Your task to perform on an android device: Show me the best rated coffee table on Ikea Image 0: 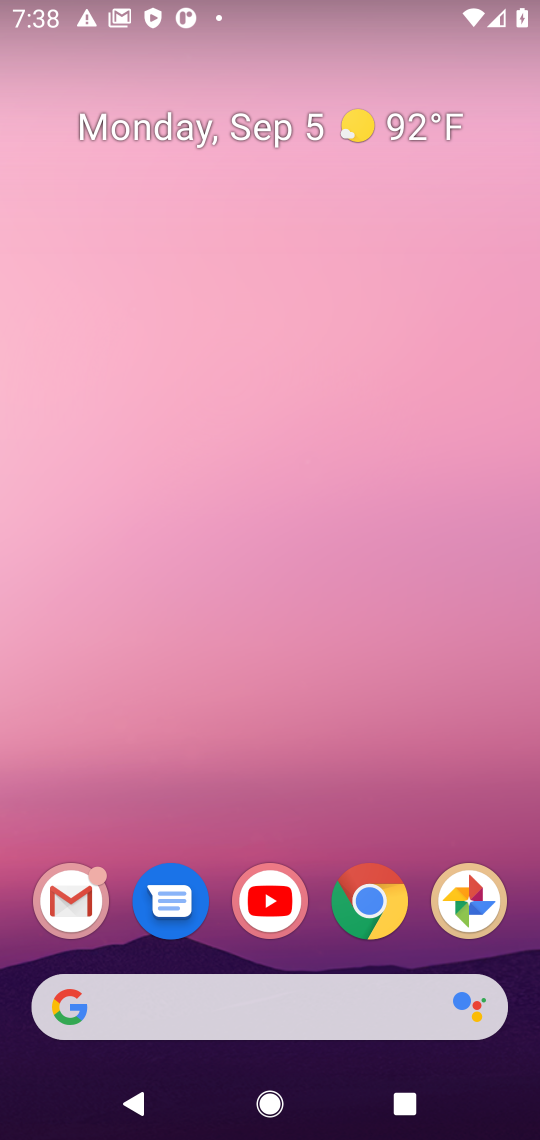
Step 0: click (354, 927)
Your task to perform on an android device: Show me the best rated coffee table on Ikea Image 1: 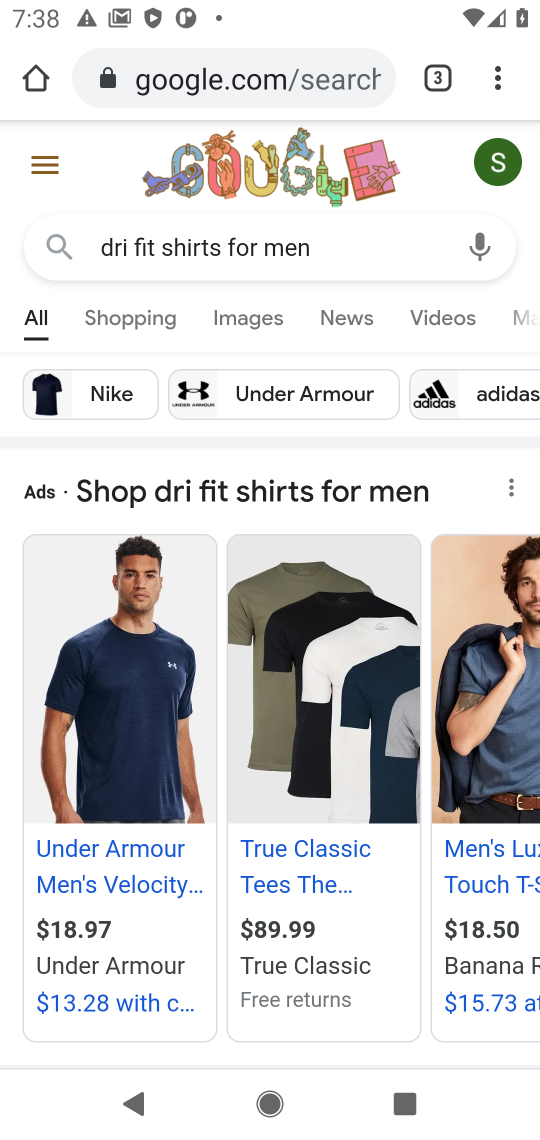
Step 1: click (269, 90)
Your task to perform on an android device: Show me the best rated coffee table on Ikea Image 2: 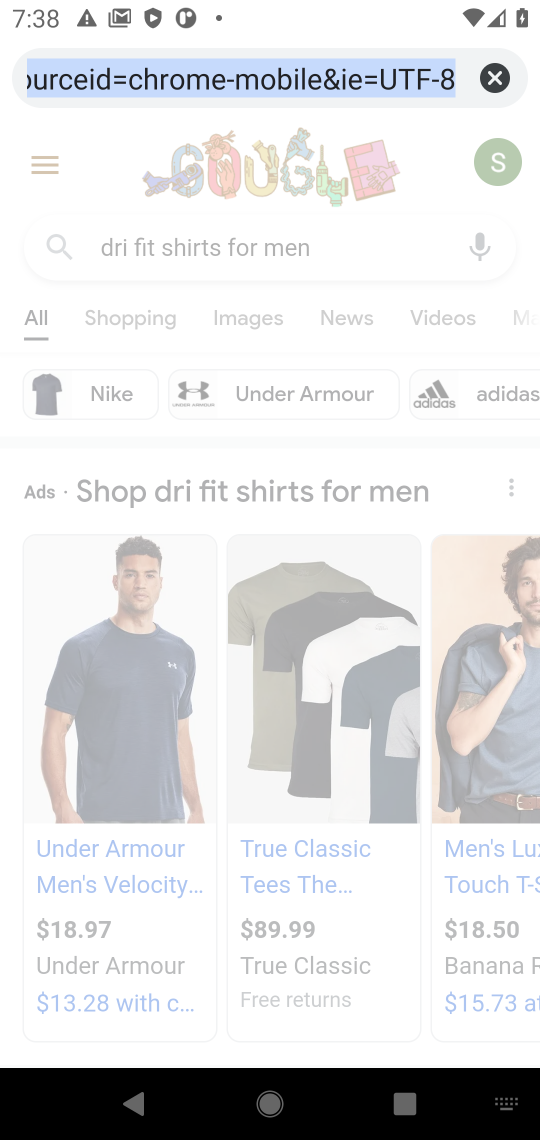
Step 2: type "ikea"
Your task to perform on an android device: Show me the best rated coffee table on Ikea Image 3: 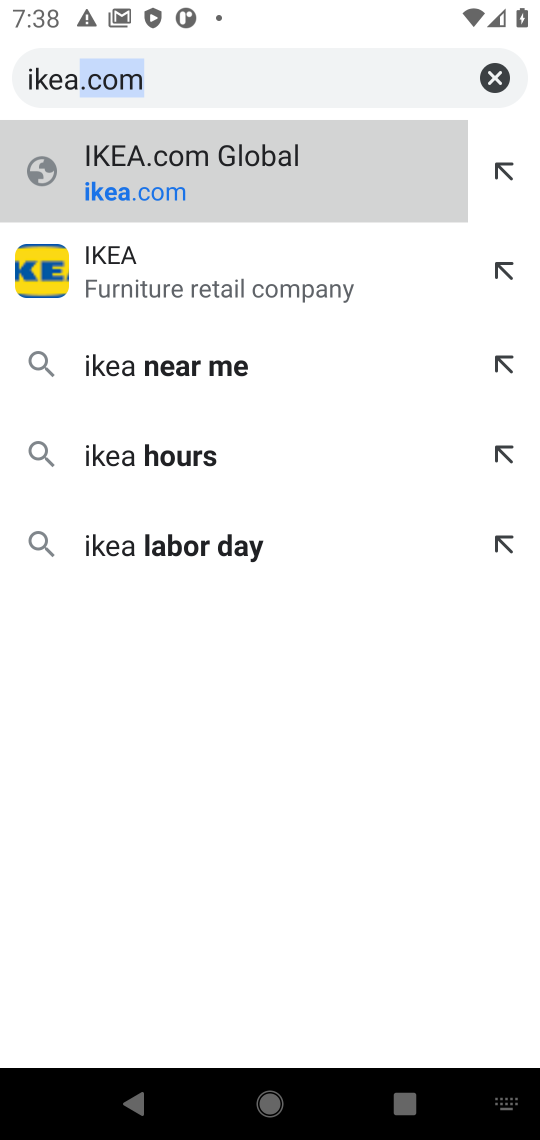
Step 3: click (131, 179)
Your task to perform on an android device: Show me the best rated coffee table on Ikea Image 4: 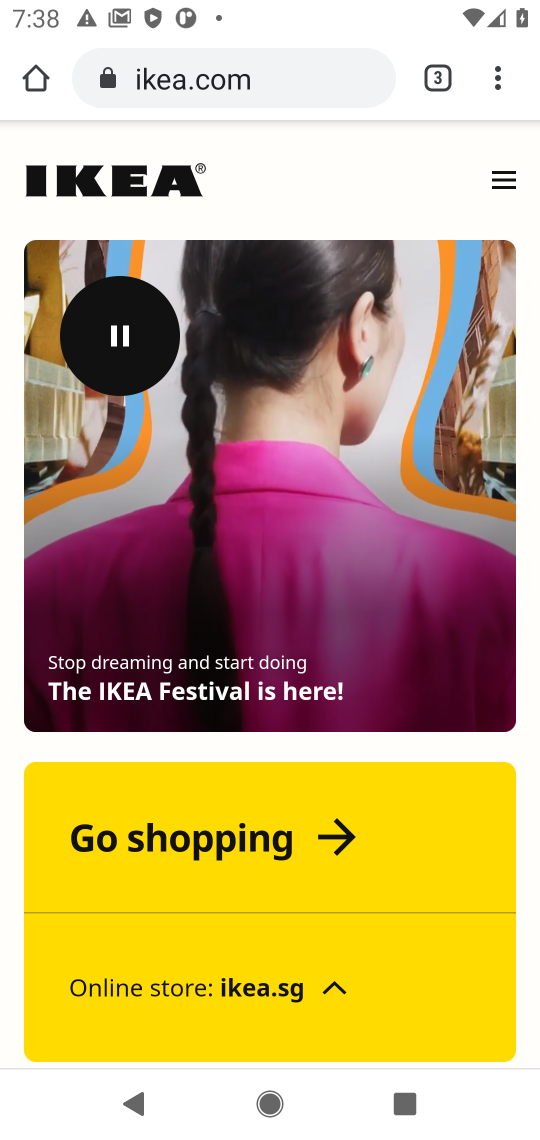
Step 4: click (137, 840)
Your task to perform on an android device: Show me the best rated coffee table on Ikea Image 5: 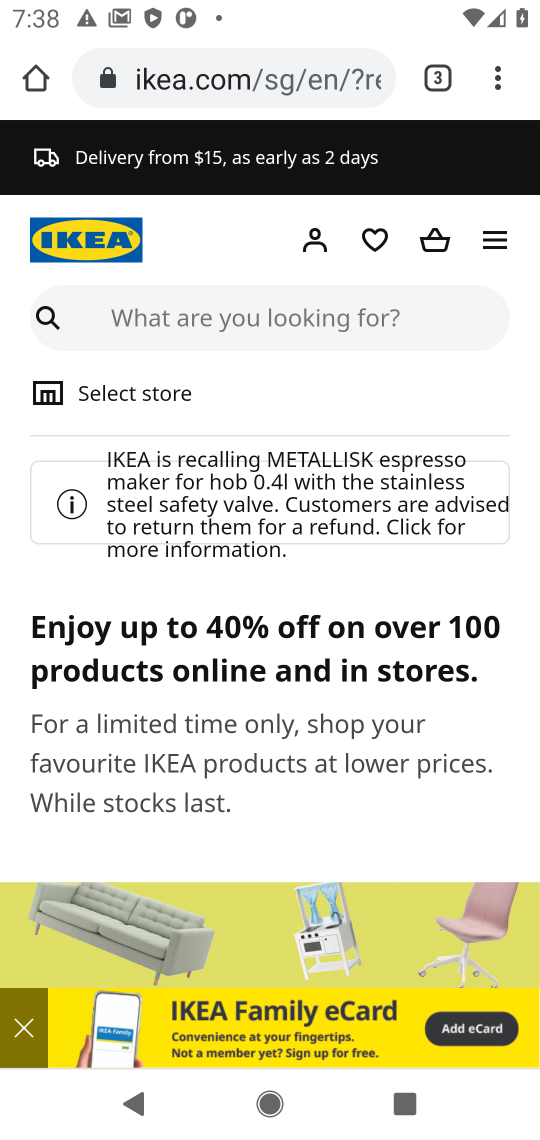
Step 5: click (276, 316)
Your task to perform on an android device: Show me the best rated coffee table on Ikea Image 6: 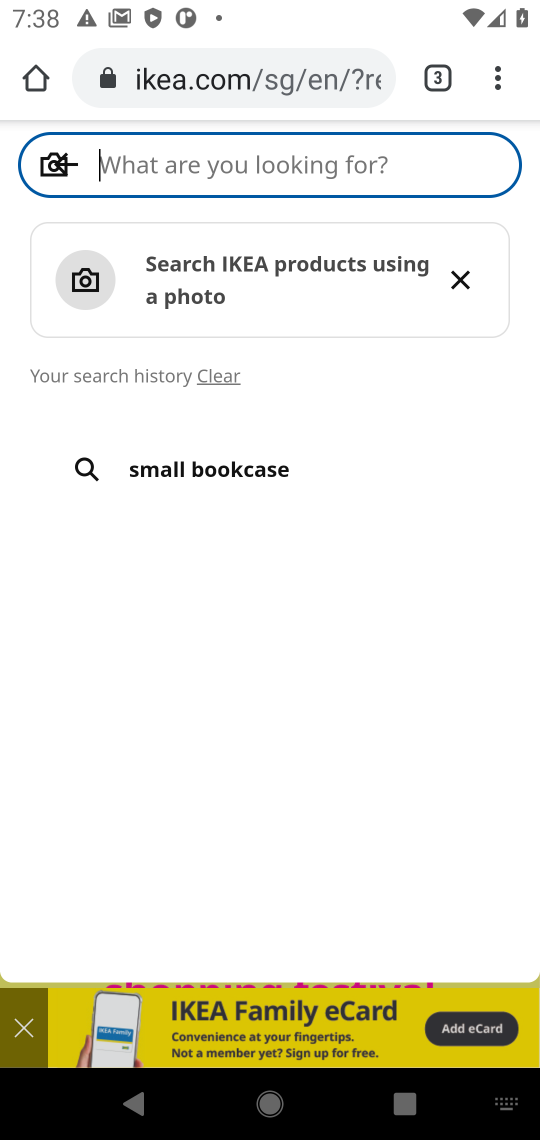
Step 6: type "coffee table"
Your task to perform on an android device: Show me the best rated coffee table on Ikea Image 7: 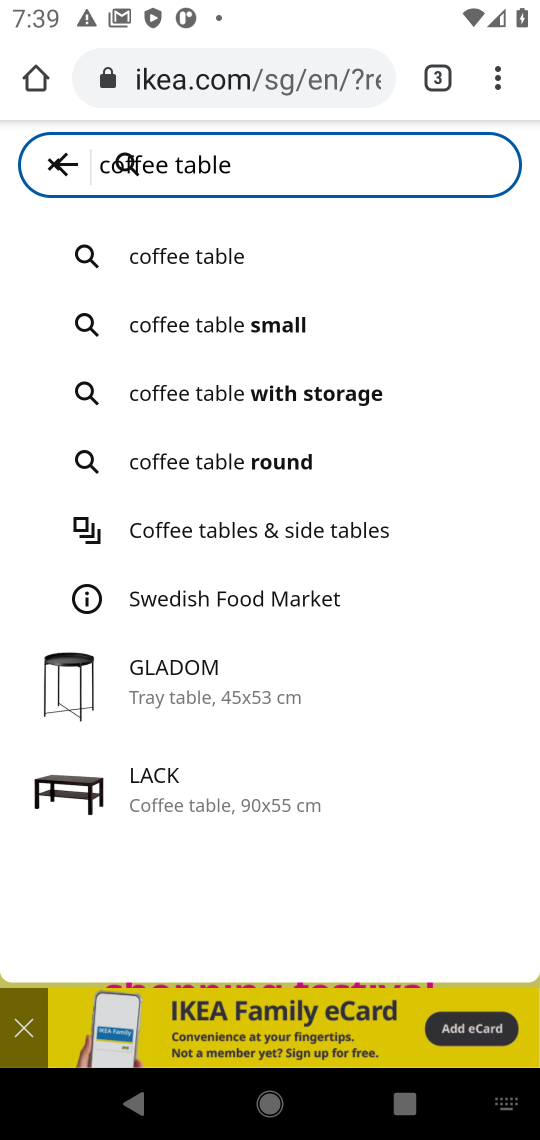
Step 7: click (260, 249)
Your task to perform on an android device: Show me the best rated coffee table on Ikea Image 8: 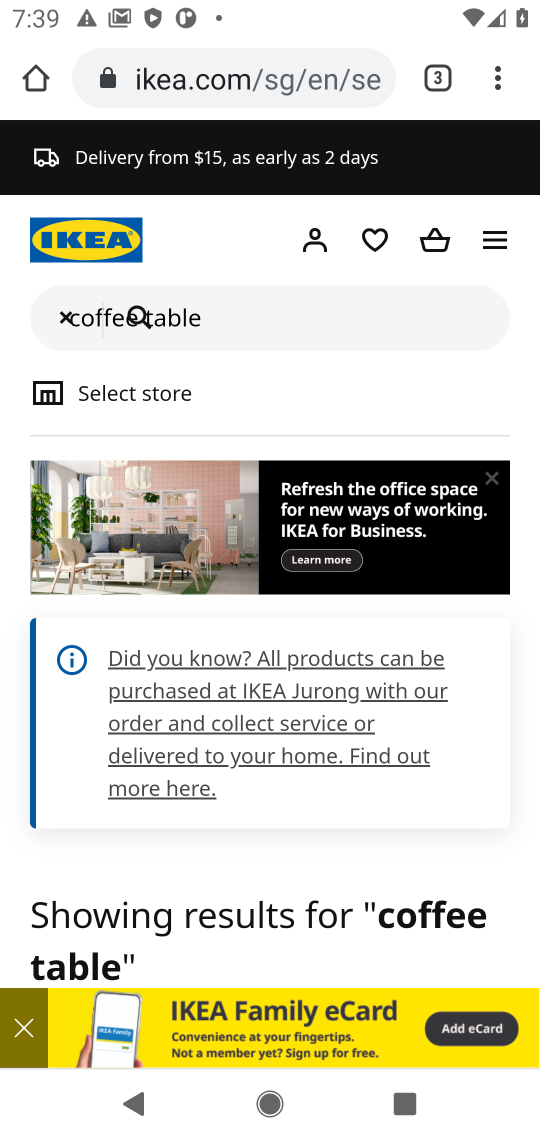
Step 8: task complete